Your task to perform on an android device: Turn off the flashlight Image 0: 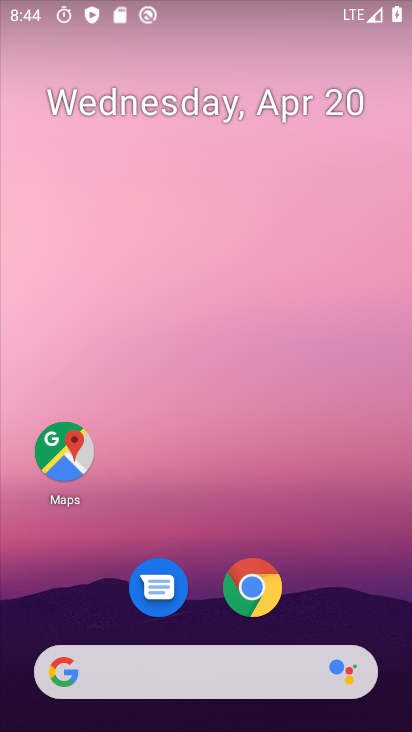
Step 0: drag from (263, 6) to (244, 356)
Your task to perform on an android device: Turn off the flashlight Image 1: 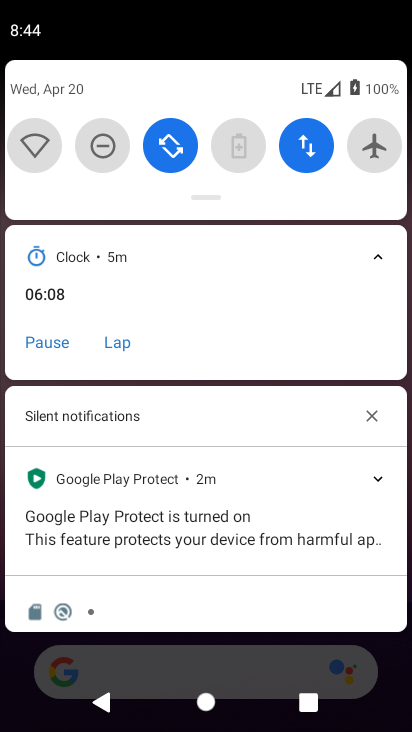
Step 1: drag from (214, 96) to (199, 377)
Your task to perform on an android device: Turn off the flashlight Image 2: 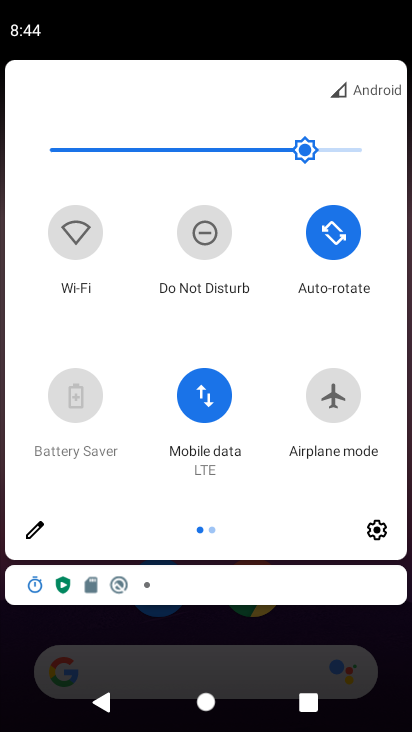
Step 2: click (35, 537)
Your task to perform on an android device: Turn off the flashlight Image 3: 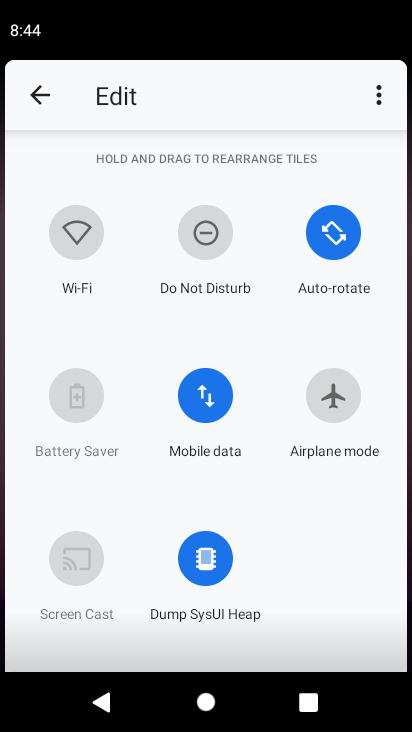
Step 3: task complete